Your task to perform on an android device: empty trash in the gmail app Image 0: 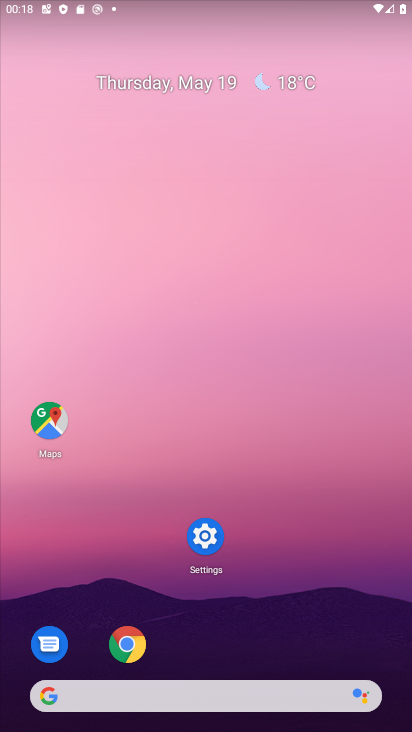
Step 0: drag from (326, 636) to (304, 136)
Your task to perform on an android device: empty trash in the gmail app Image 1: 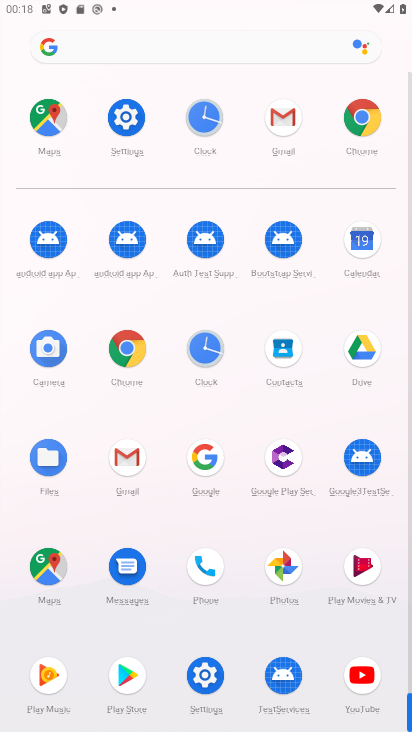
Step 1: click (291, 118)
Your task to perform on an android device: empty trash in the gmail app Image 2: 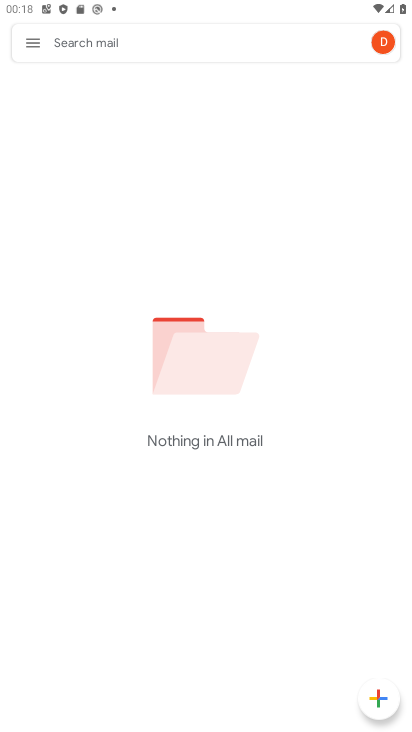
Step 2: click (41, 39)
Your task to perform on an android device: empty trash in the gmail app Image 3: 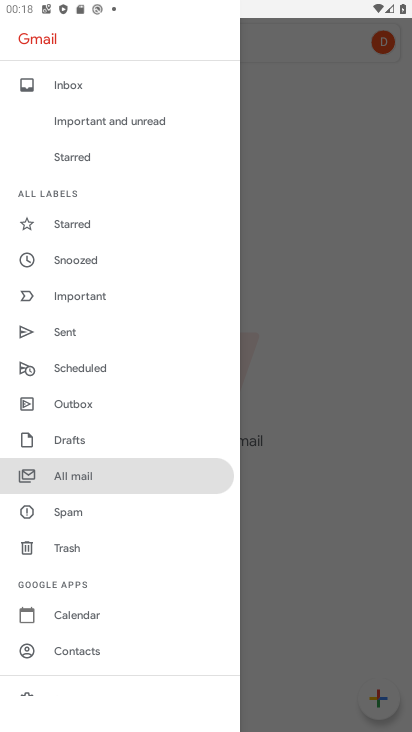
Step 3: click (81, 555)
Your task to perform on an android device: empty trash in the gmail app Image 4: 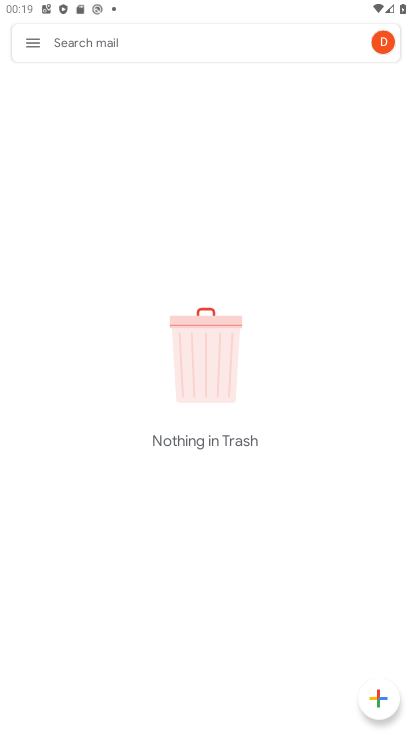
Step 4: task complete